Your task to perform on an android device: install app "ZOOM Cloud Meetings" Image 0: 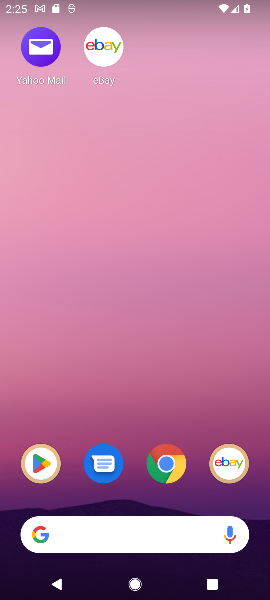
Step 0: click (51, 467)
Your task to perform on an android device: install app "ZOOM Cloud Meetings" Image 1: 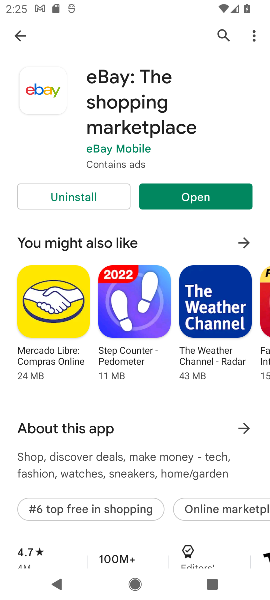
Step 1: click (221, 29)
Your task to perform on an android device: install app "ZOOM Cloud Meetings" Image 2: 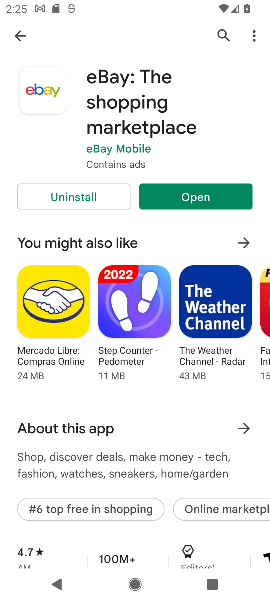
Step 2: click (223, 31)
Your task to perform on an android device: install app "ZOOM Cloud Meetings" Image 3: 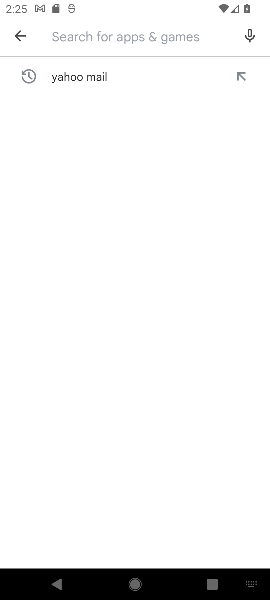
Step 3: type "ZOOM Cloud Meetings""
Your task to perform on an android device: install app "ZOOM Cloud Meetings" Image 4: 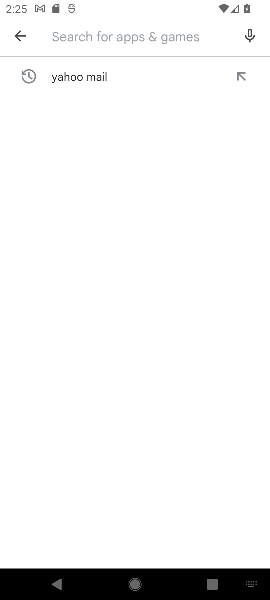
Step 4: type "ZOOM Cloud Meetings"
Your task to perform on an android device: install app "ZOOM Cloud Meetings" Image 5: 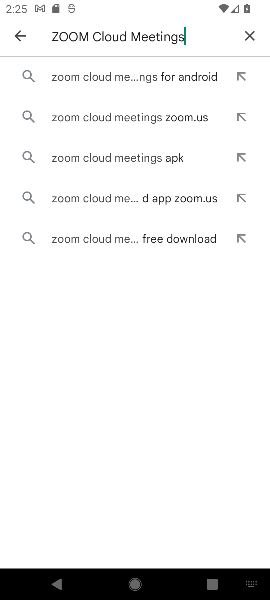
Step 5: click (145, 80)
Your task to perform on an android device: install app "ZOOM Cloud Meetings" Image 6: 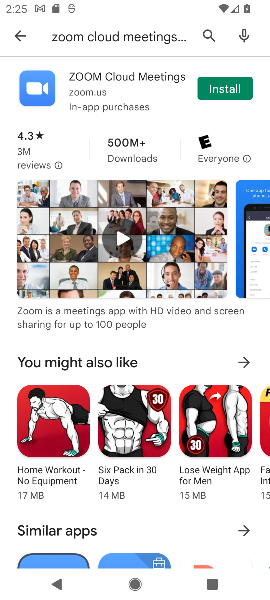
Step 6: click (223, 92)
Your task to perform on an android device: install app "ZOOM Cloud Meetings" Image 7: 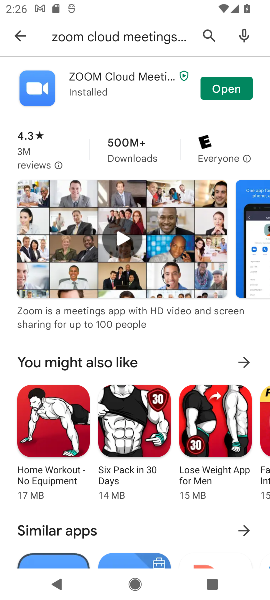
Step 7: task complete